Your task to perform on an android device: turn smart compose on in the gmail app Image 0: 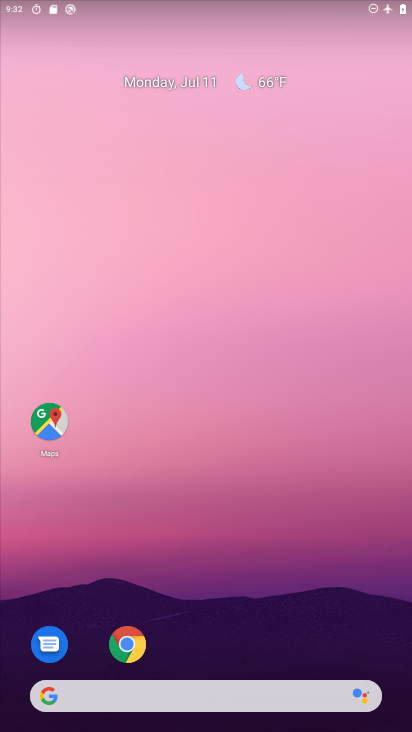
Step 0: drag from (338, 611) to (311, 9)
Your task to perform on an android device: turn smart compose on in the gmail app Image 1: 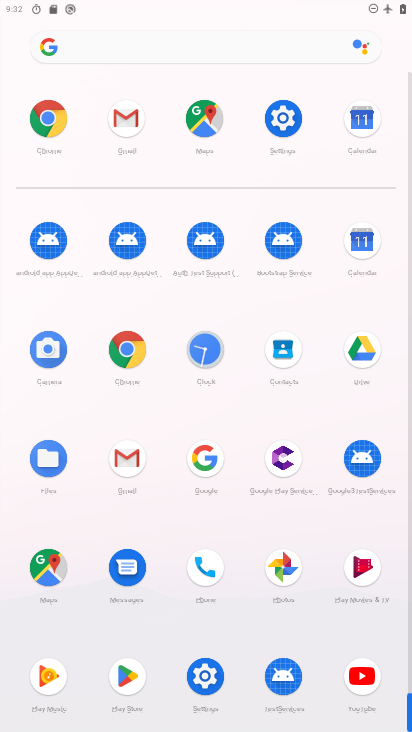
Step 1: click (135, 117)
Your task to perform on an android device: turn smart compose on in the gmail app Image 2: 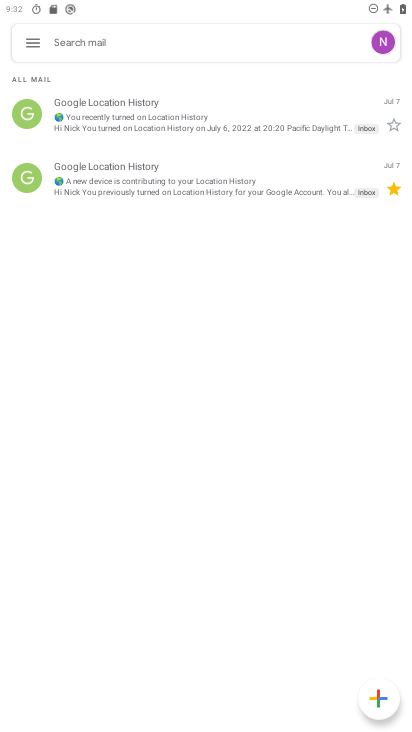
Step 2: click (30, 44)
Your task to perform on an android device: turn smart compose on in the gmail app Image 3: 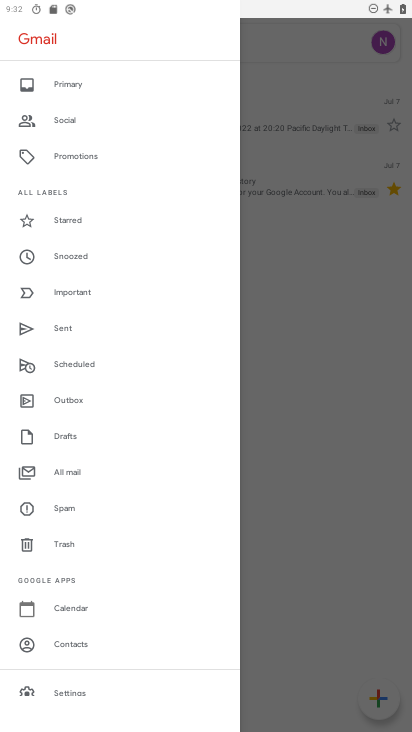
Step 3: click (76, 690)
Your task to perform on an android device: turn smart compose on in the gmail app Image 4: 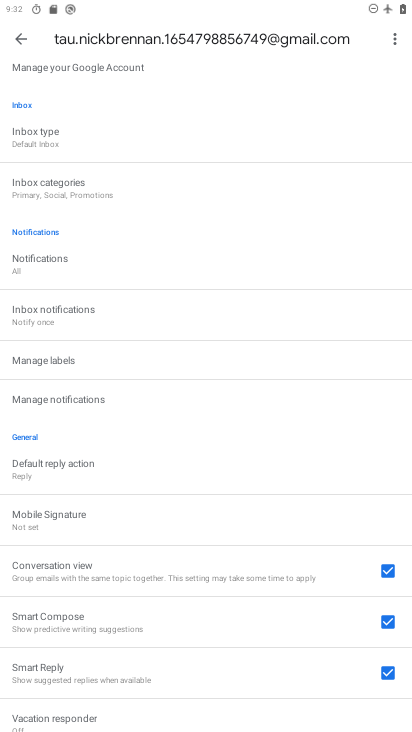
Step 4: task complete